Your task to perform on an android device: What's the weather today? Image 0: 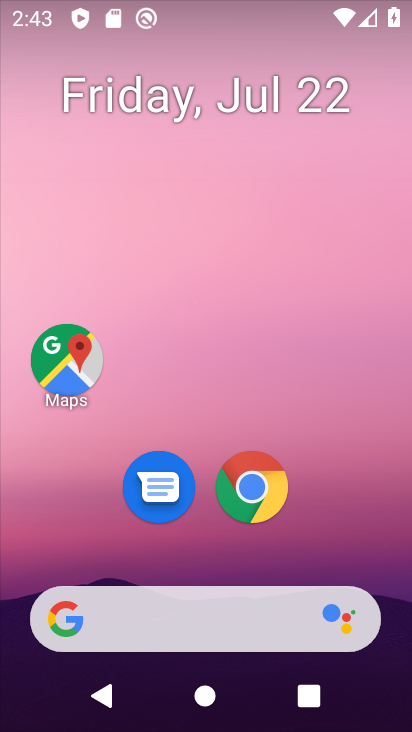
Step 0: click (162, 612)
Your task to perform on an android device: What's the weather today? Image 1: 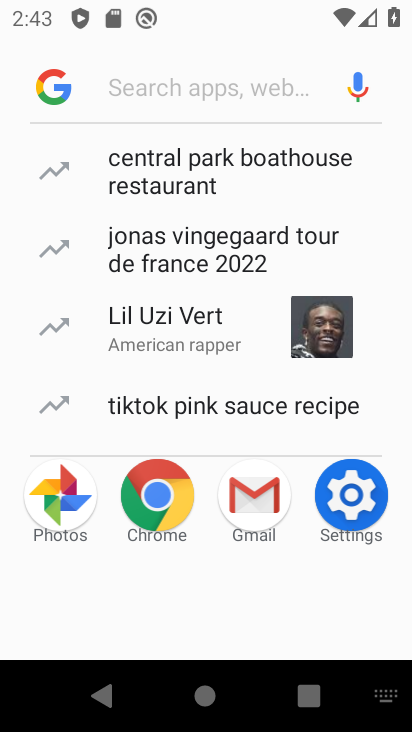
Step 1: type "weather"
Your task to perform on an android device: What's the weather today? Image 2: 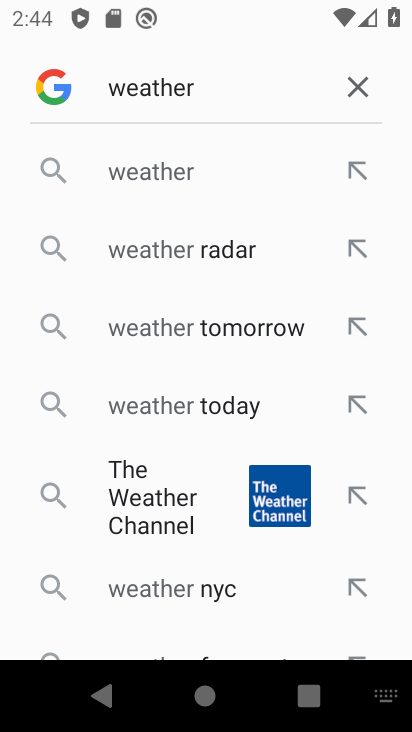
Step 2: click (152, 173)
Your task to perform on an android device: What's the weather today? Image 3: 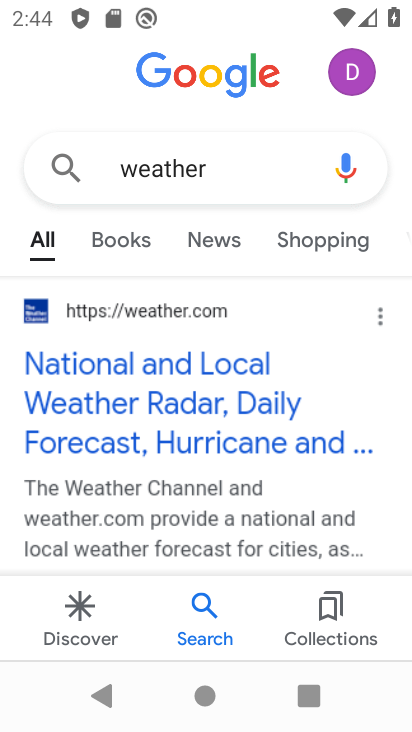
Step 3: click (175, 405)
Your task to perform on an android device: What's the weather today? Image 4: 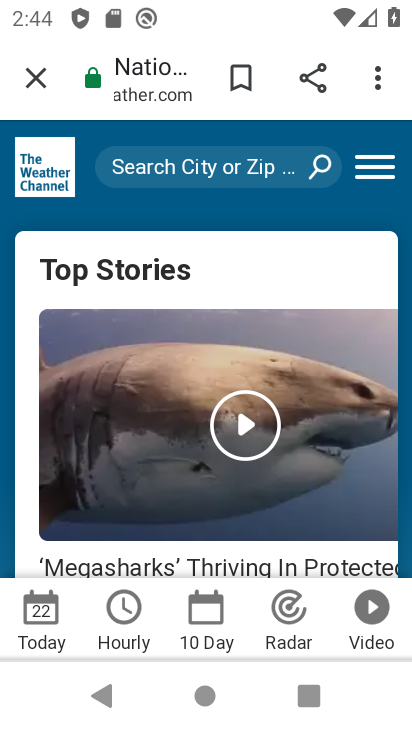
Step 4: drag from (175, 530) to (261, 41)
Your task to perform on an android device: What's the weather today? Image 5: 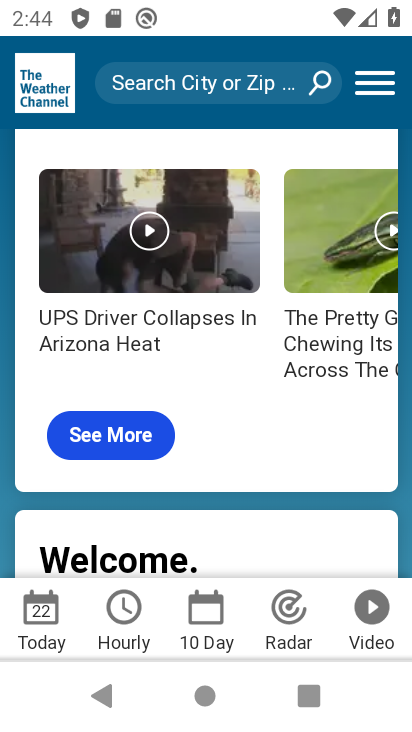
Step 5: click (42, 620)
Your task to perform on an android device: What's the weather today? Image 6: 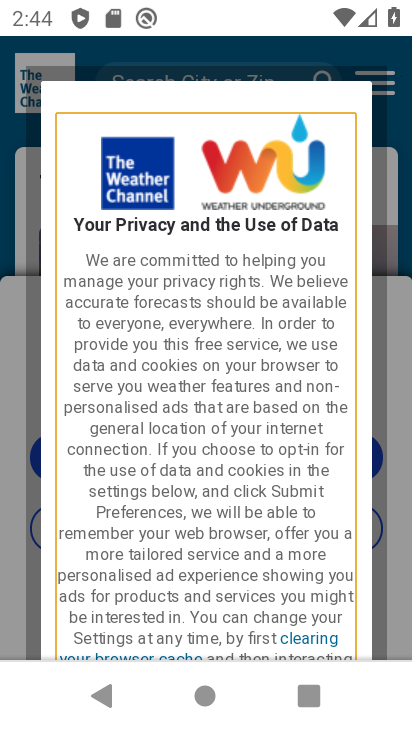
Step 6: drag from (239, 593) to (255, 80)
Your task to perform on an android device: What's the weather today? Image 7: 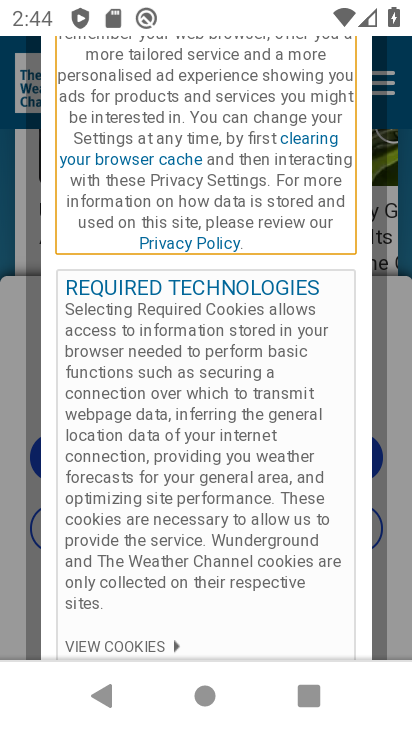
Step 7: drag from (182, 559) to (275, 1)
Your task to perform on an android device: What's the weather today? Image 8: 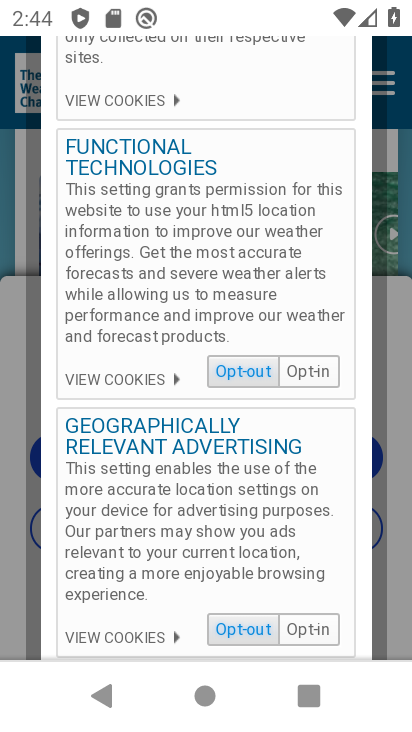
Step 8: drag from (283, 538) to (308, 43)
Your task to perform on an android device: What's the weather today? Image 9: 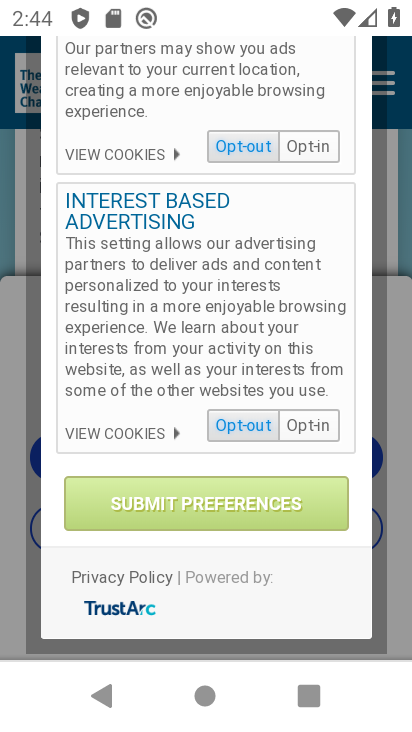
Step 9: drag from (313, 120) to (165, 657)
Your task to perform on an android device: What's the weather today? Image 10: 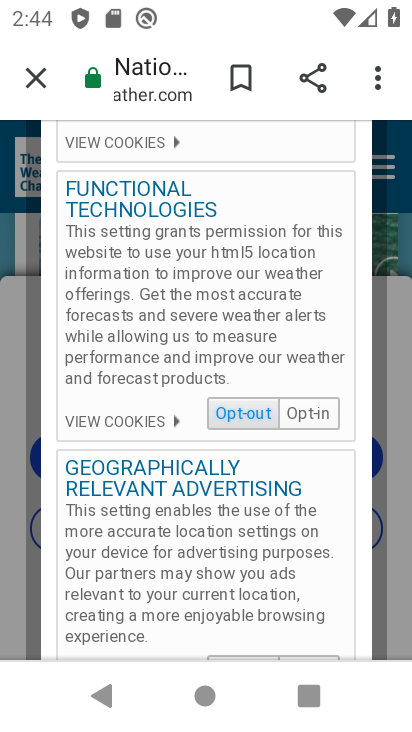
Step 10: drag from (208, 221) to (131, 727)
Your task to perform on an android device: What's the weather today? Image 11: 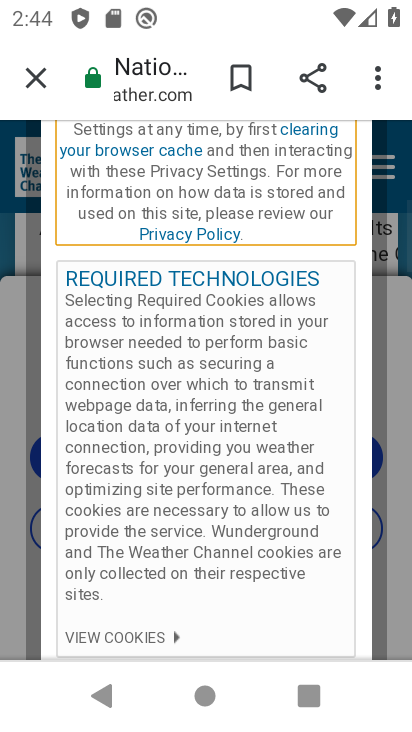
Step 11: drag from (219, 216) to (130, 725)
Your task to perform on an android device: What's the weather today? Image 12: 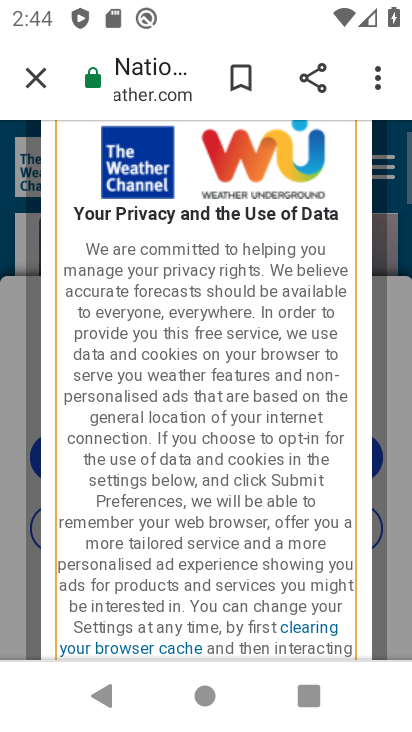
Step 12: drag from (202, 214) to (88, 730)
Your task to perform on an android device: What's the weather today? Image 13: 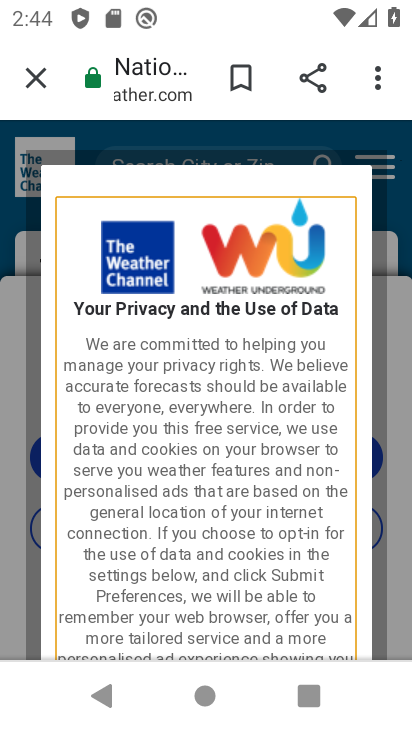
Step 13: click (219, 148)
Your task to perform on an android device: What's the weather today? Image 14: 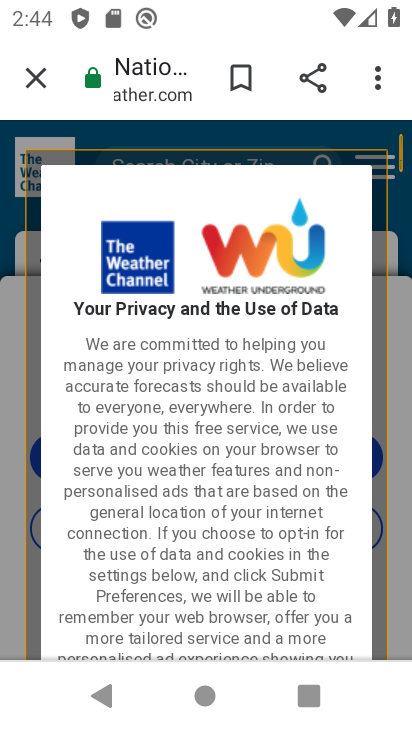
Step 14: click (231, 137)
Your task to perform on an android device: What's the weather today? Image 15: 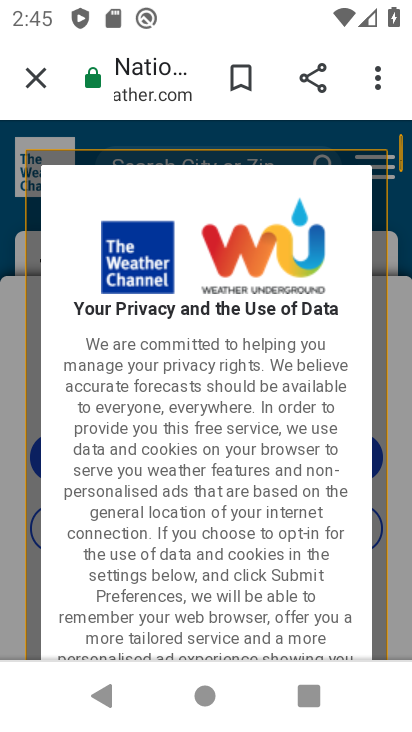
Step 15: task complete